Your task to perform on an android device: change the clock display to show seconds Image 0: 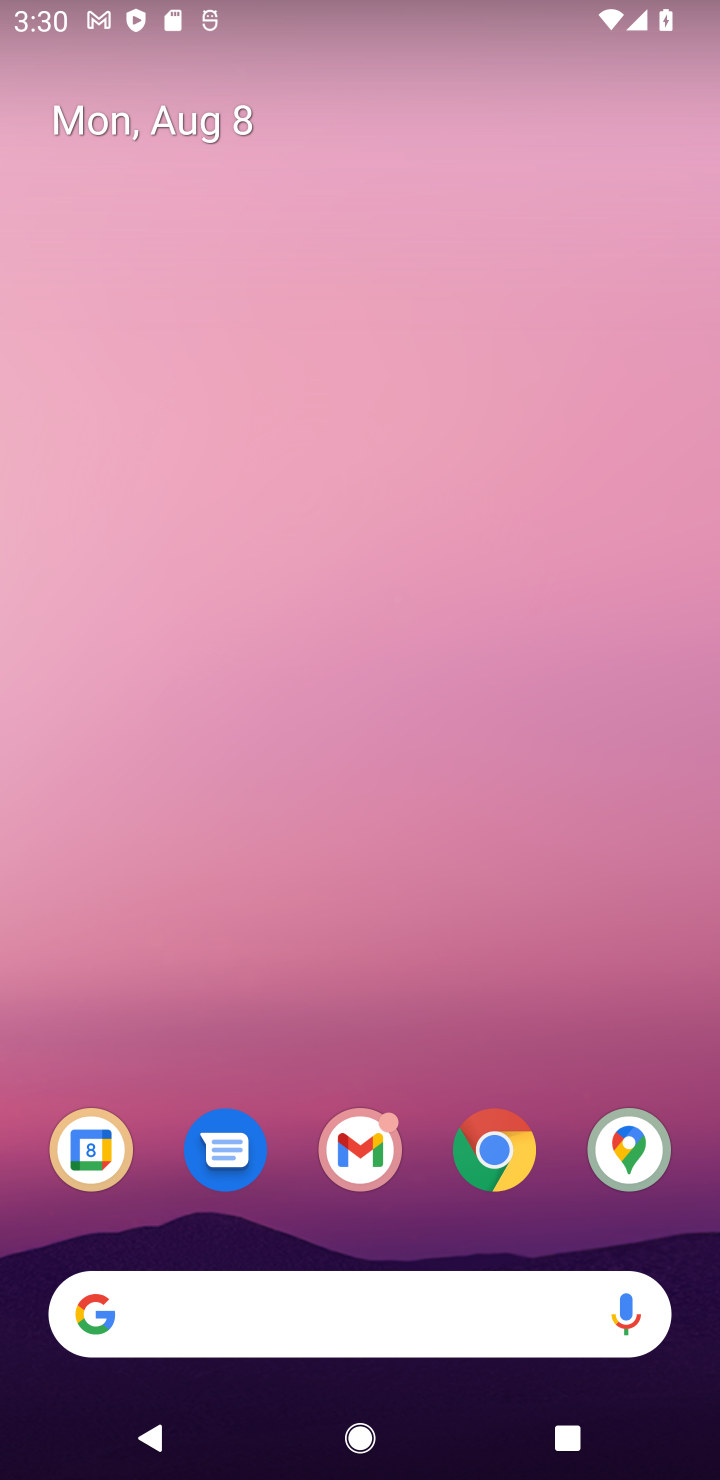
Step 0: drag from (430, 1253) to (364, 228)
Your task to perform on an android device: change the clock display to show seconds Image 1: 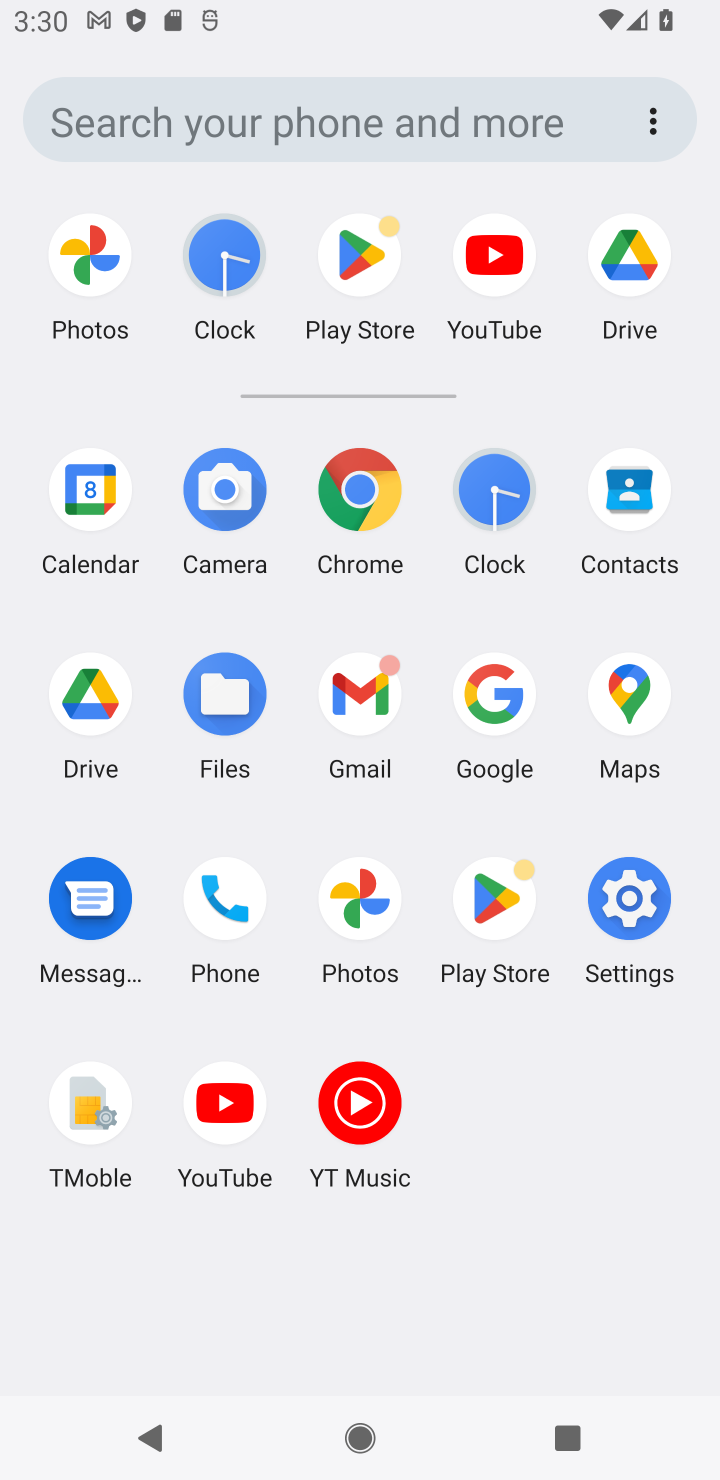
Step 1: click (493, 472)
Your task to perform on an android device: change the clock display to show seconds Image 2: 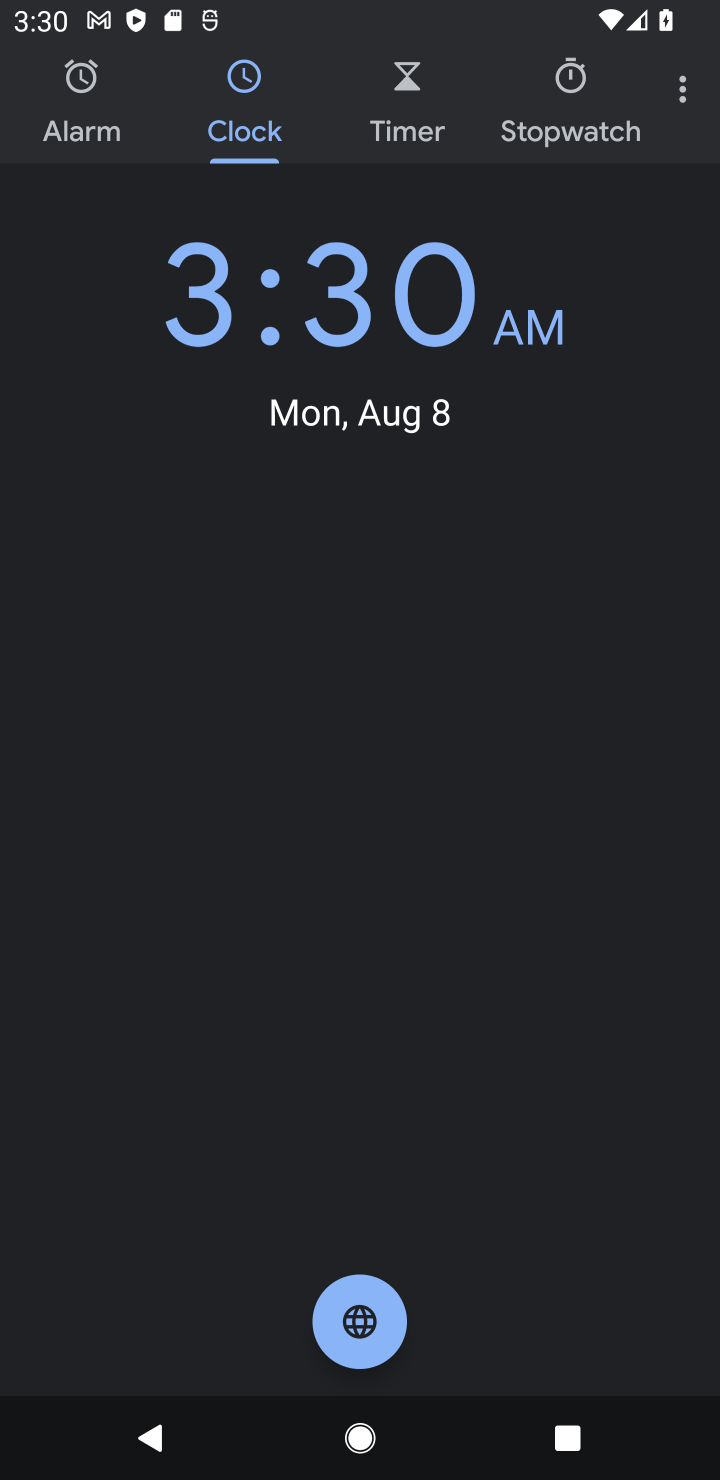
Step 2: task complete